Your task to perform on an android device: toggle notification dots Image 0: 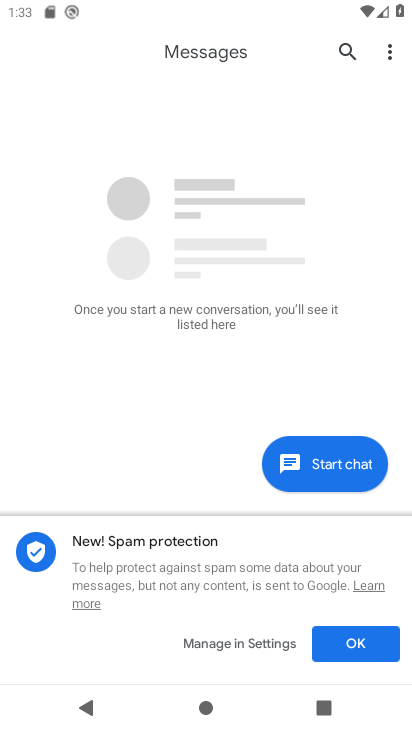
Step 0: press home button
Your task to perform on an android device: toggle notification dots Image 1: 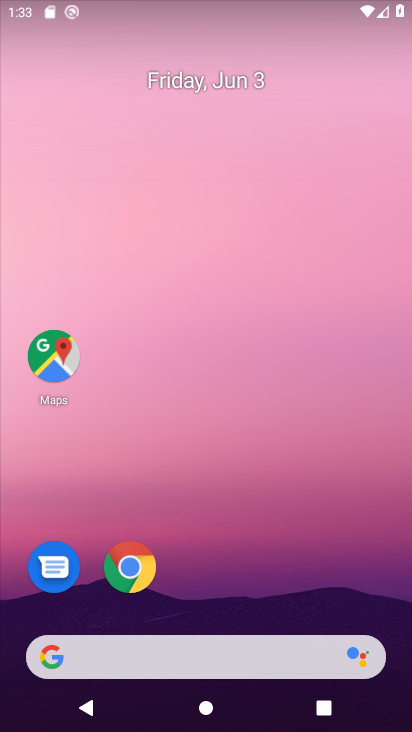
Step 1: drag from (217, 560) to (212, 177)
Your task to perform on an android device: toggle notification dots Image 2: 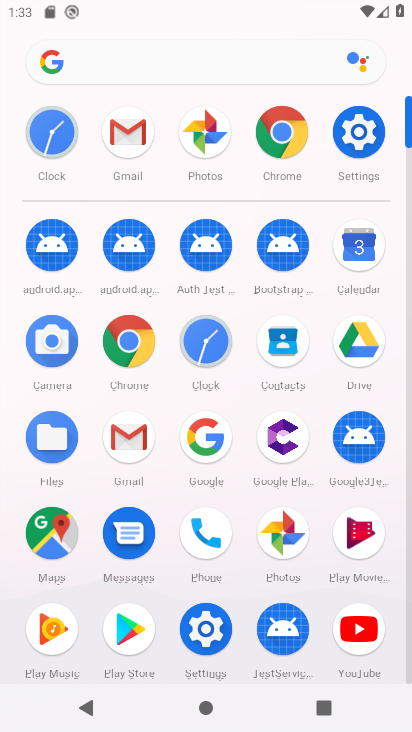
Step 2: click (352, 133)
Your task to perform on an android device: toggle notification dots Image 3: 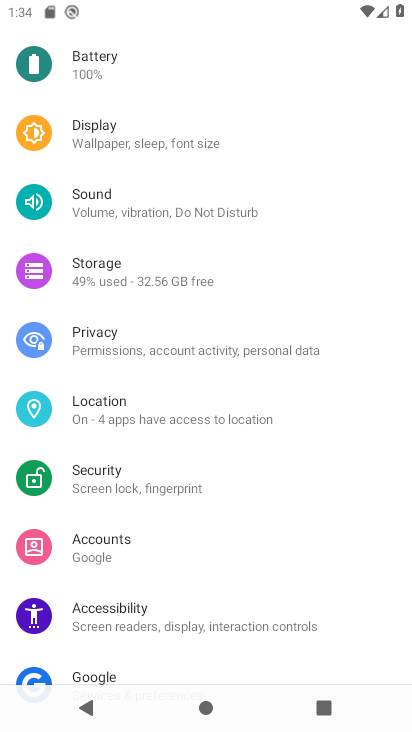
Step 3: drag from (164, 116) to (180, 586)
Your task to perform on an android device: toggle notification dots Image 4: 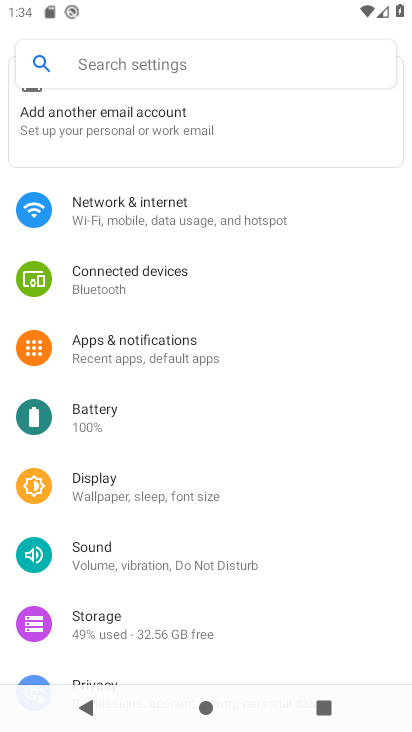
Step 4: click (175, 60)
Your task to perform on an android device: toggle notification dots Image 5: 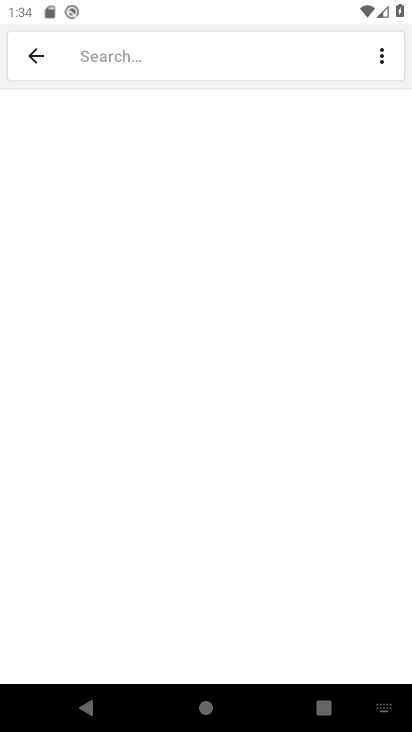
Step 5: click (173, 53)
Your task to perform on an android device: toggle notification dots Image 6: 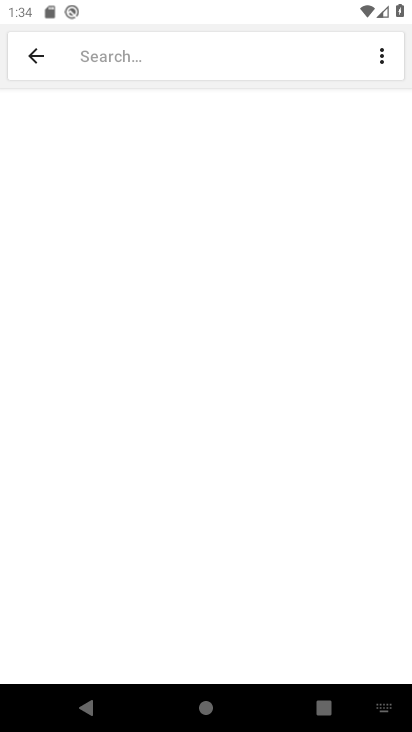
Step 6: click (198, 52)
Your task to perform on an android device: toggle notification dots Image 7: 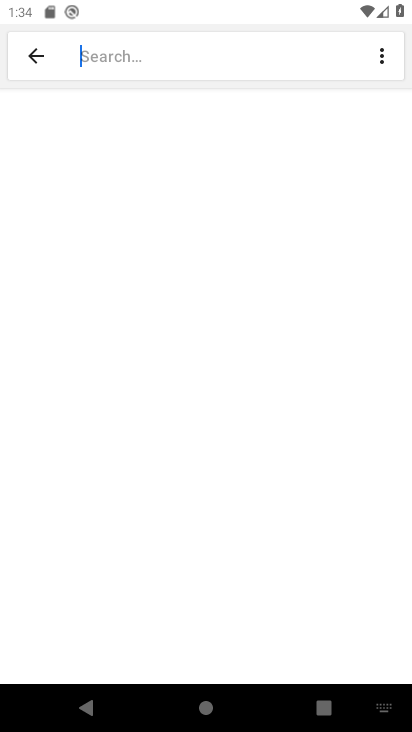
Step 7: type " notification dots"
Your task to perform on an android device: toggle notification dots Image 8: 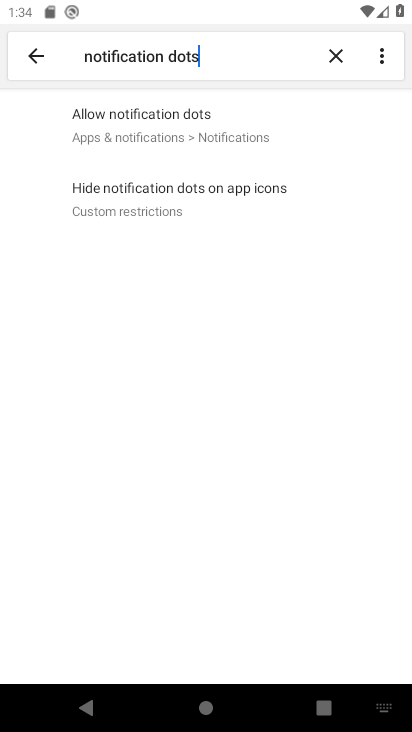
Step 8: click (175, 127)
Your task to perform on an android device: toggle notification dots Image 9: 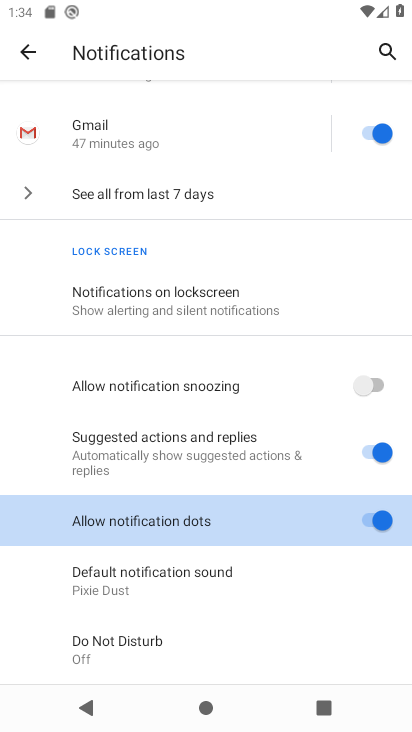
Step 9: task complete